Your task to perform on an android device: Go to Yahoo.com Image 0: 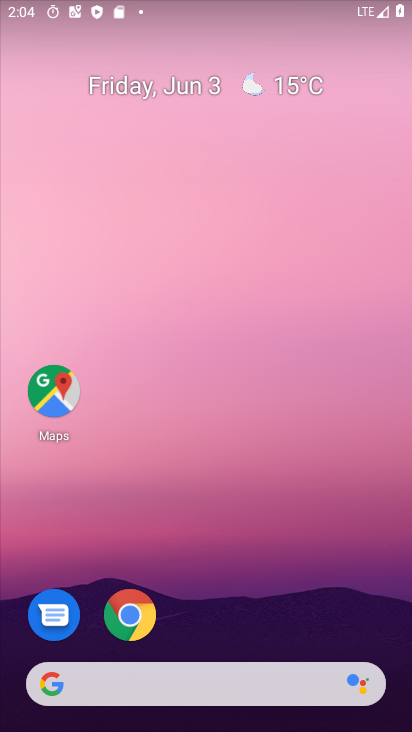
Step 0: drag from (215, 560) to (268, 140)
Your task to perform on an android device: Go to Yahoo.com Image 1: 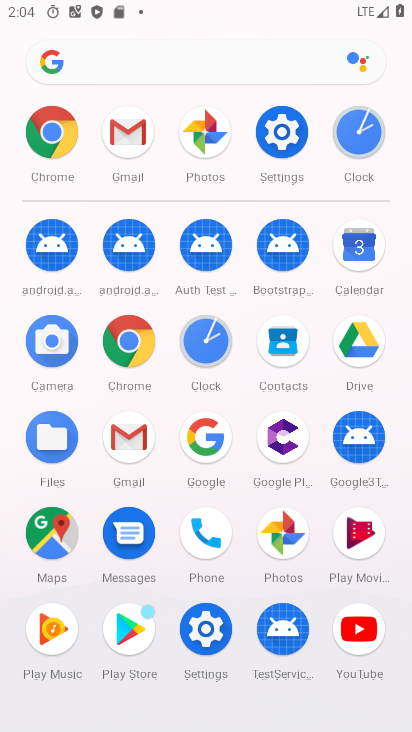
Step 1: click (127, 59)
Your task to perform on an android device: Go to Yahoo.com Image 2: 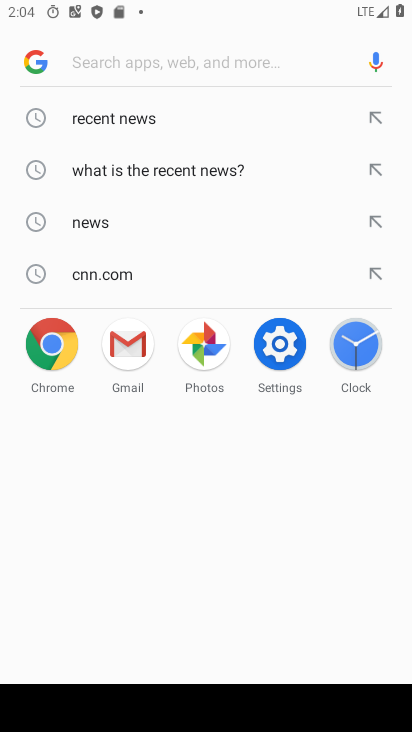
Step 2: type "Yahoo.com"
Your task to perform on an android device: Go to Yahoo.com Image 3: 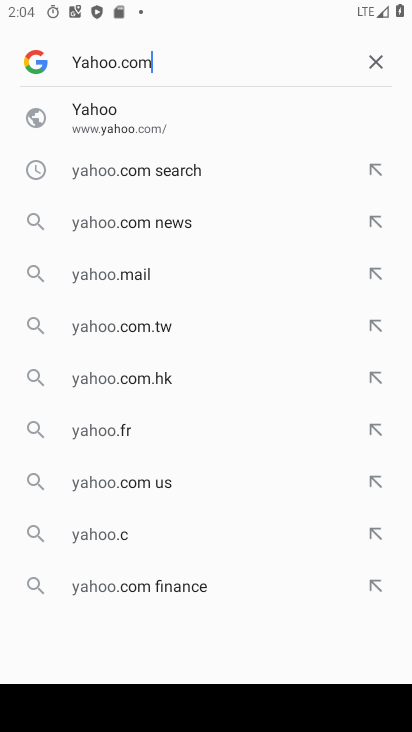
Step 3: type ""
Your task to perform on an android device: Go to Yahoo.com Image 4: 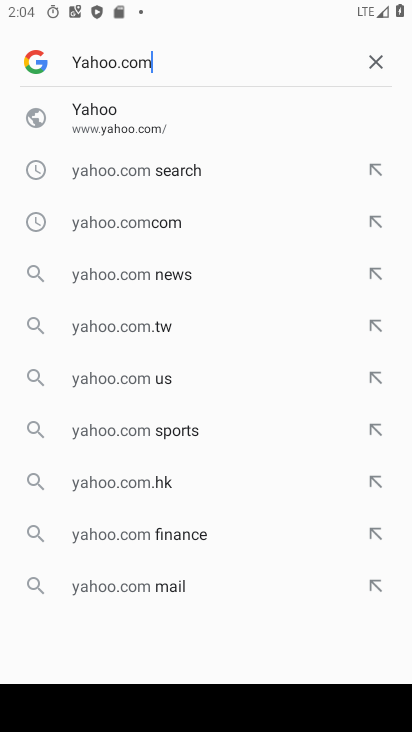
Step 4: click (152, 125)
Your task to perform on an android device: Go to Yahoo.com Image 5: 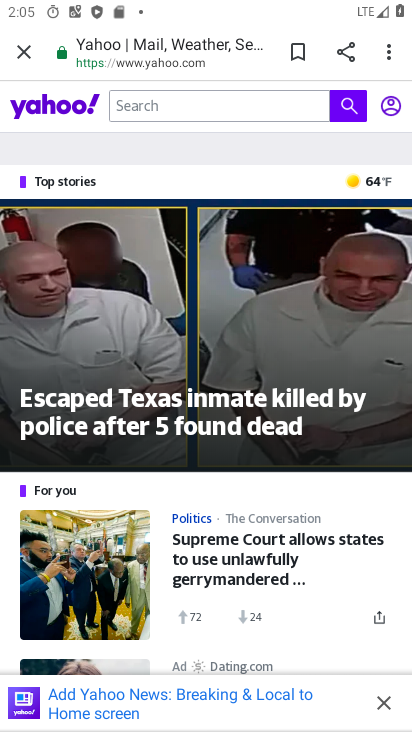
Step 5: task complete